Your task to perform on an android device: change the clock display to analog Image 0: 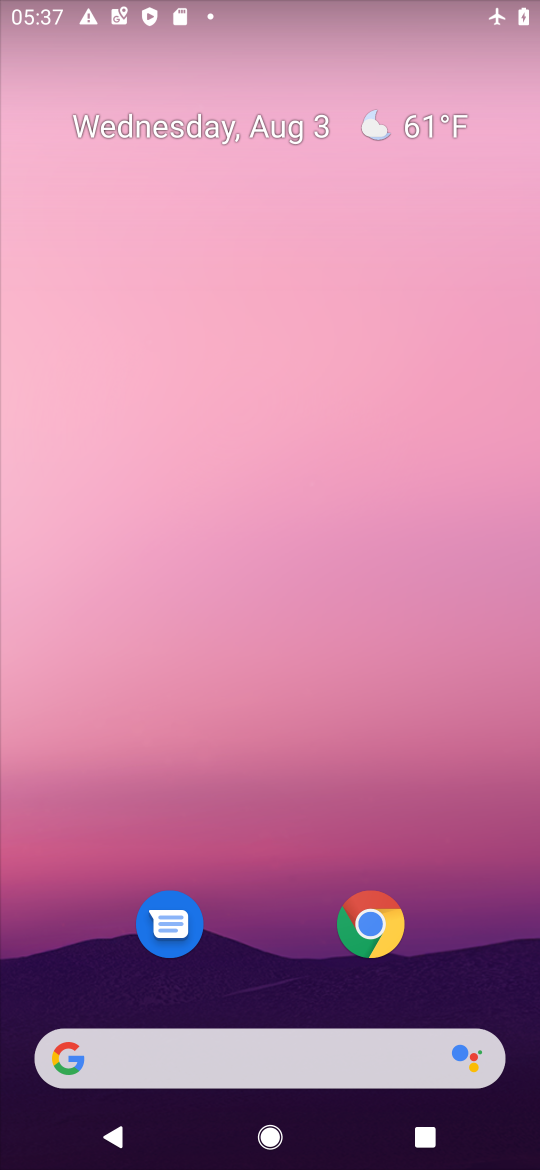
Step 0: drag from (257, 899) to (224, 323)
Your task to perform on an android device: change the clock display to analog Image 1: 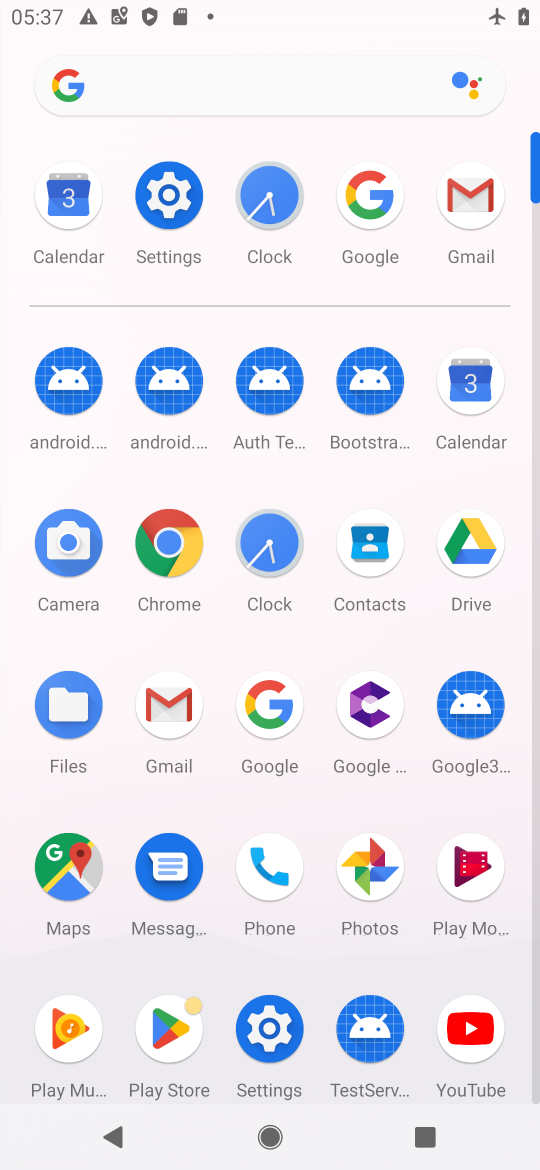
Step 1: click (253, 211)
Your task to perform on an android device: change the clock display to analog Image 2: 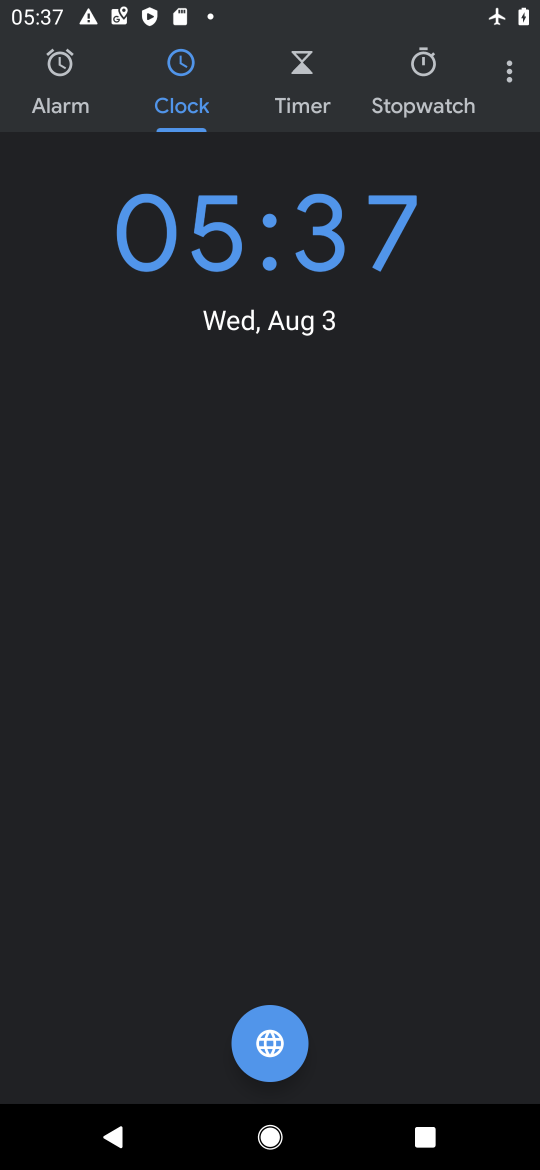
Step 2: click (510, 73)
Your task to perform on an android device: change the clock display to analog Image 3: 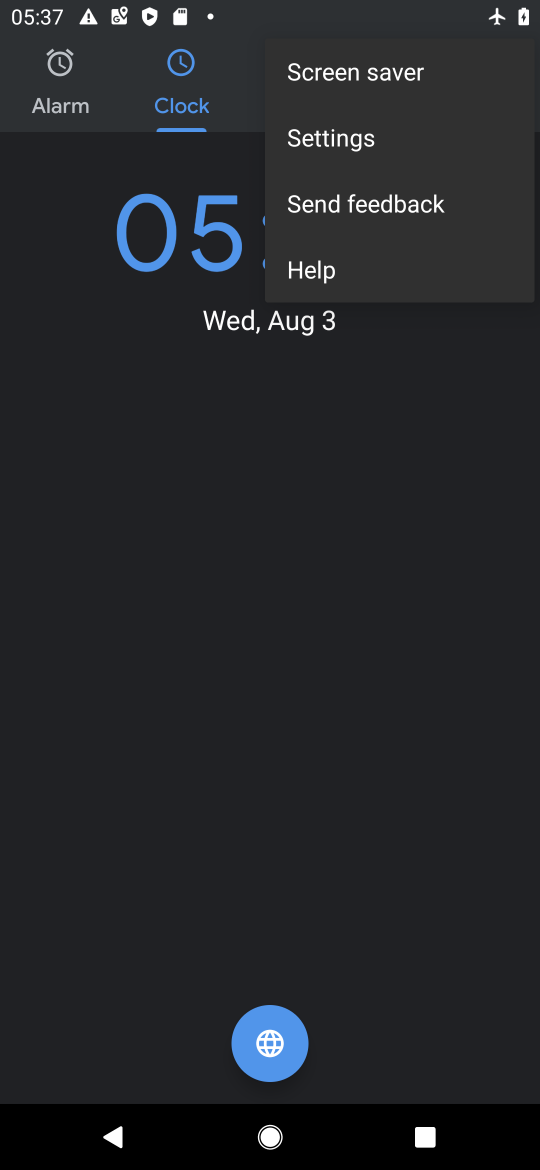
Step 3: click (327, 159)
Your task to perform on an android device: change the clock display to analog Image 4: 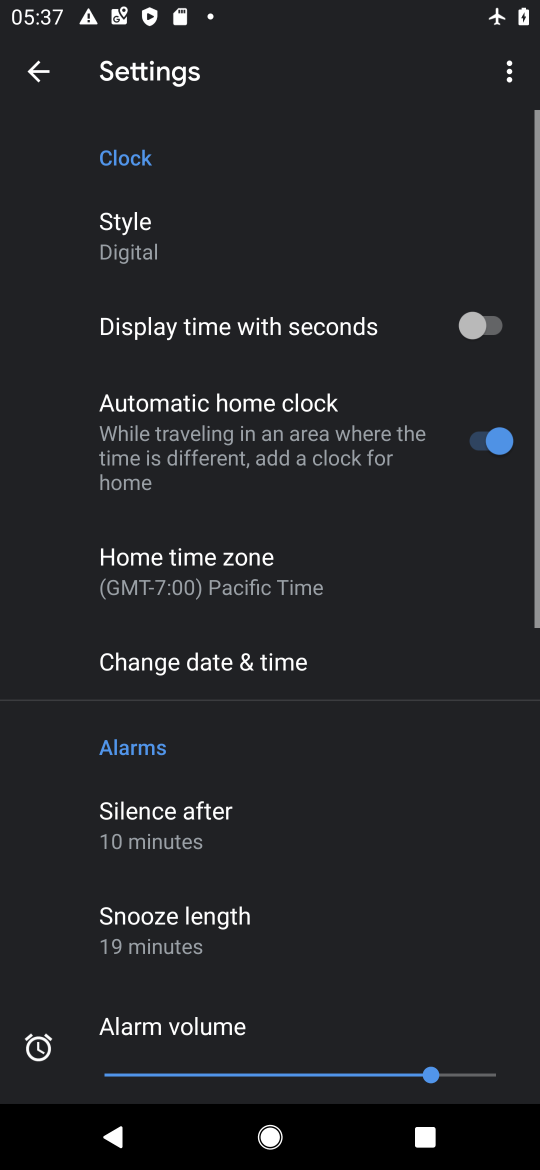
Step 4: click (173, 242)
Your task to perform on an android device: change the clock display to analog Image 5: 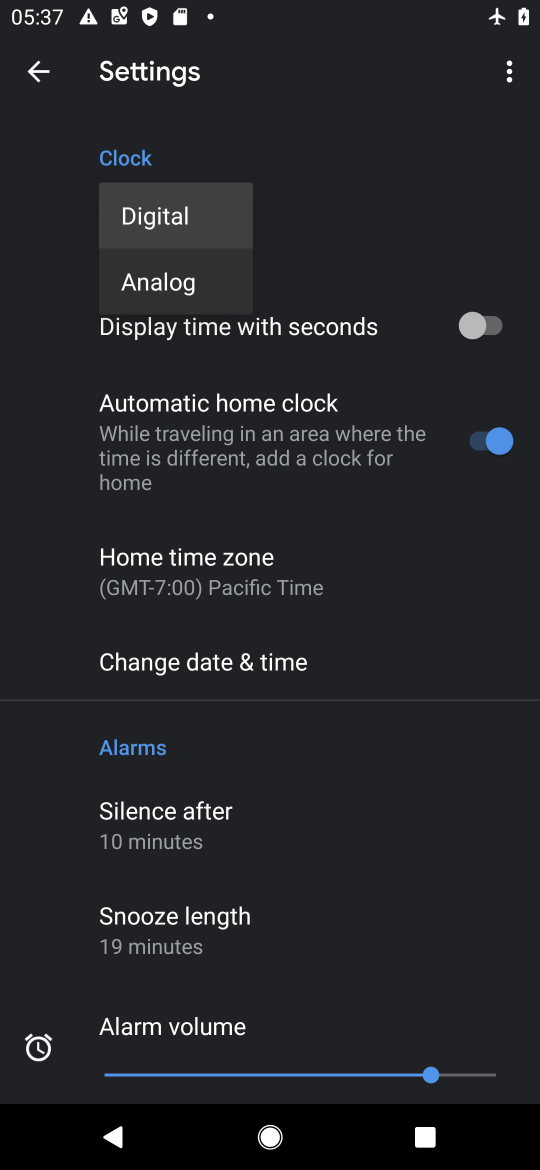
Step 5: click (157, 284)
Your task to perform on an android device: change the clock display to analog Image 6: 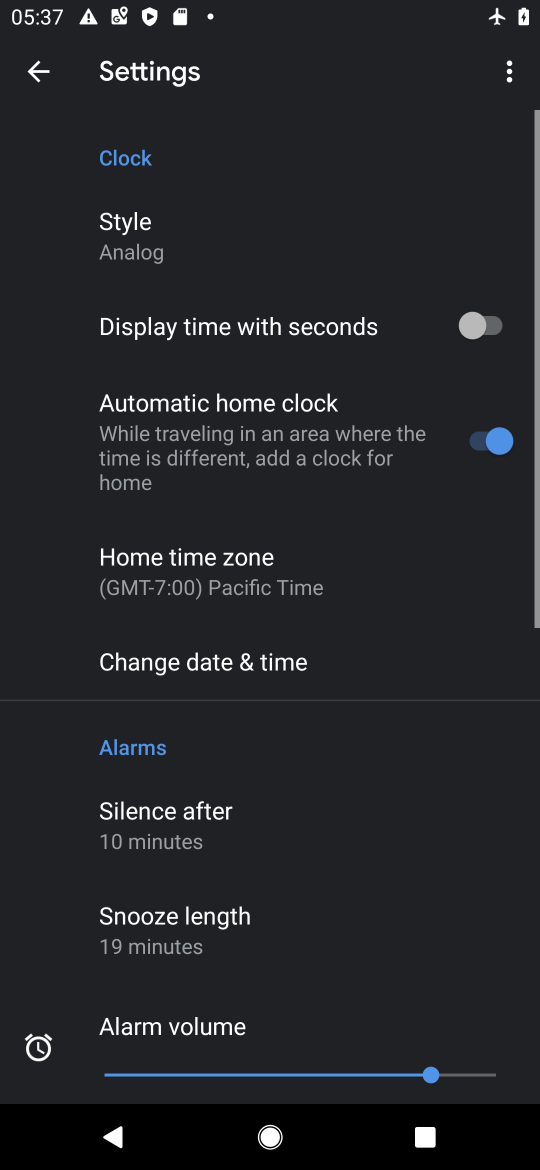
Step 6: task complete